Your task to perform on an android device: find which apps use the phone's location Image 0: 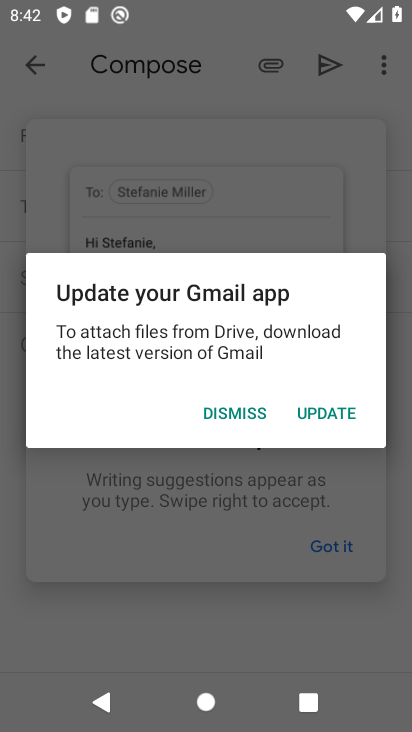
Step 0: press home button
Your task to perform on an android device: find which apps use the phone's location Image 1: 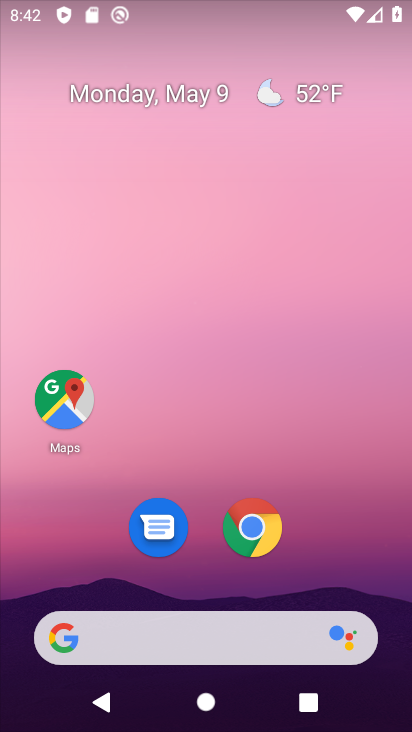
Step 1: drag from (368, 535) to (292, 162)
Your task to perform on an android device: find which apps use the phone's location Image 2: 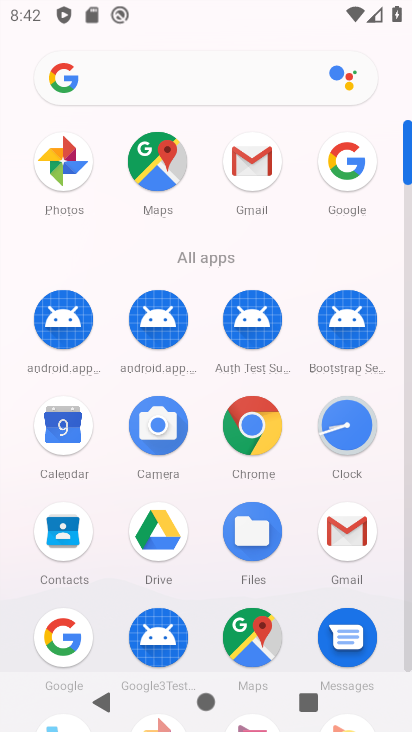
Step 2: drag from (288, 660) to (295, 256)
Your task to perform on an android device: find which apps use the phone's location Image 3: 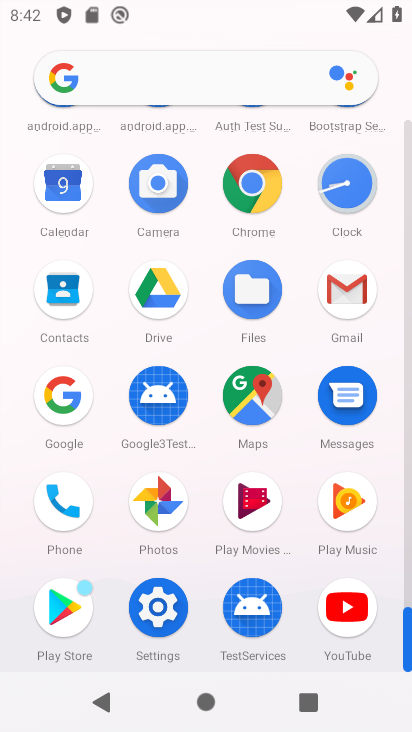
Step 3: click (176, 607)
Your task to perform on an android device: find which apps use the phone's location Image 4: 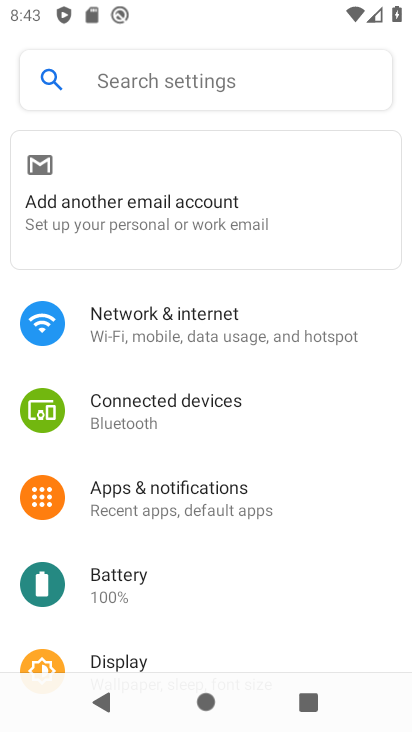
Step 4: drag from (236, 599) to (260, 236)
Your task to perform on an android device: find which apps use the phone's location Image 5: 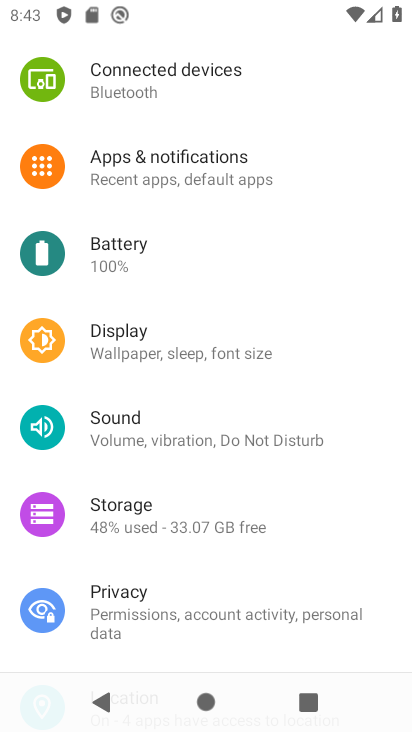
Step 5: drag from (273, 562) to (315, 209)
Your task to perform on an android device: find which apps use the phone's location Image 6: 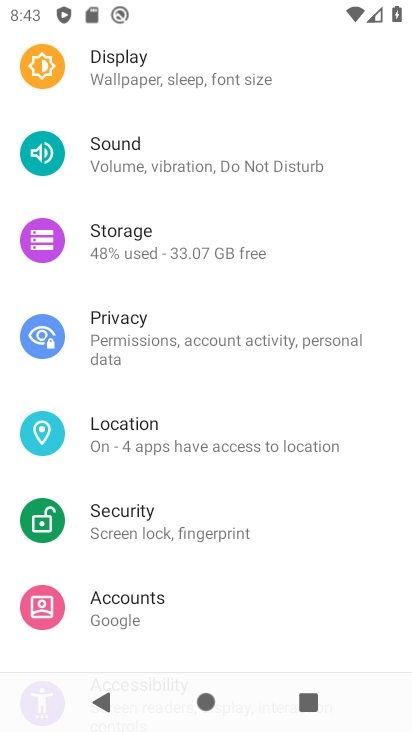
Step 6: click (242, 446)
Your task to perform on an android device: find which apps use the phone's location Image 7: 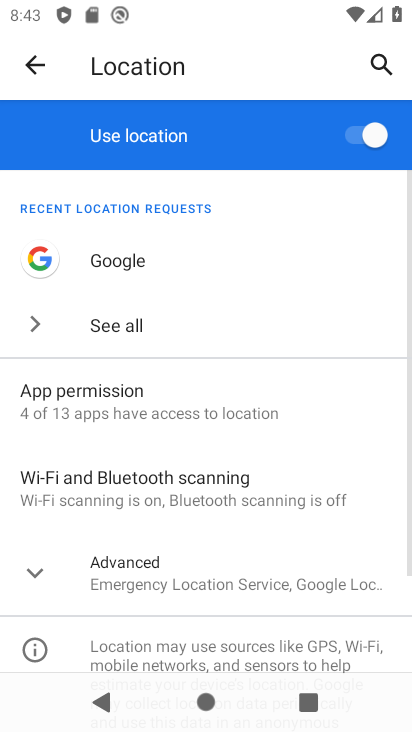
Step 7: click (123, 273)
Your task to perform on an android device: find which apps use the phone's location Image 8: 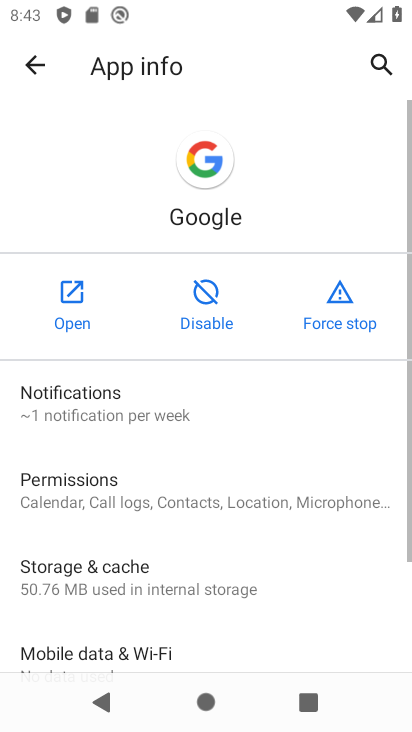
Step 8: task complete